Your task to perform on an android device: toggle show notifications on the lock screen Image 0: 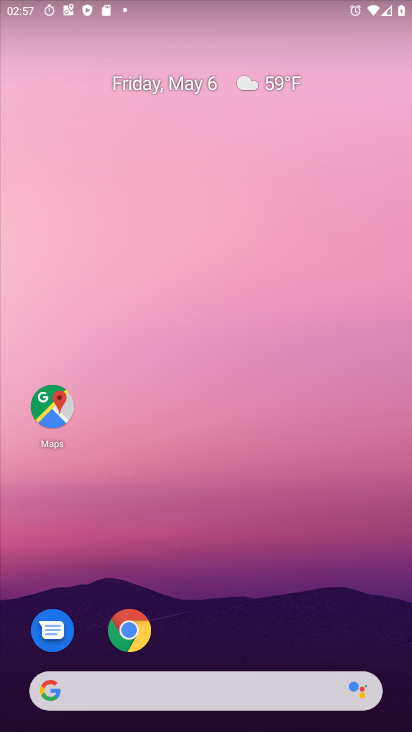
Step 0: drag from (260, 474) to (260, 89)
Your task to perform on an android device: toggle show notifications on the lock screen Image 1: 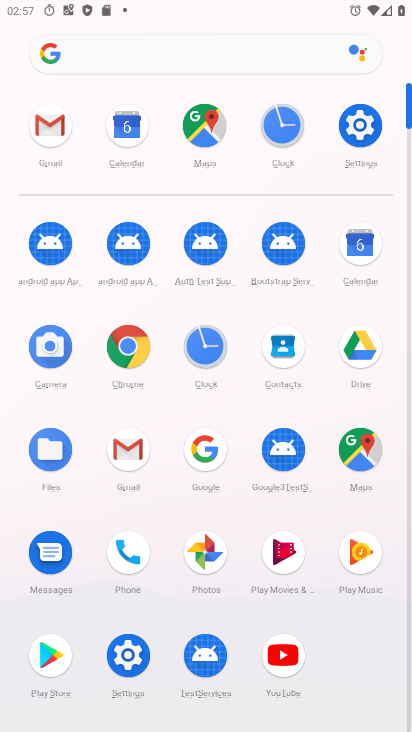
Step 1: click (355, 138)
Your task to perform on an android device: toggle show notifications on the lock screen Image 2: 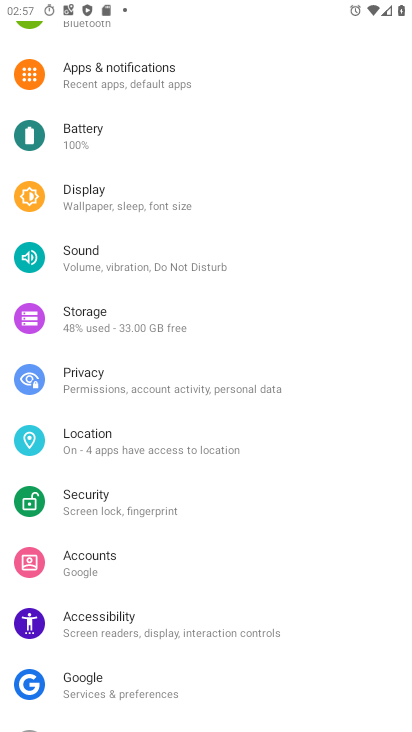
Step 2: drag from (158, 155) to (174, 354)
Your task to perform on an android device: toggle show notifications on the lock screen Image 3: 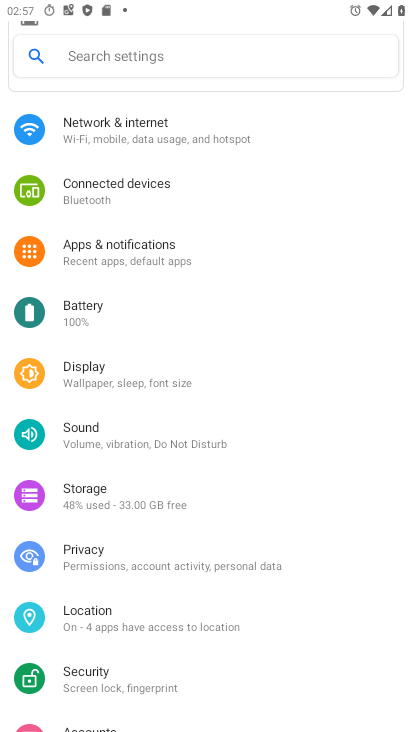
Step 3: drag from (174, 158) to (197, 299)
Your task to perform on an android device: toggle show notifications on the lock screen Image 4: 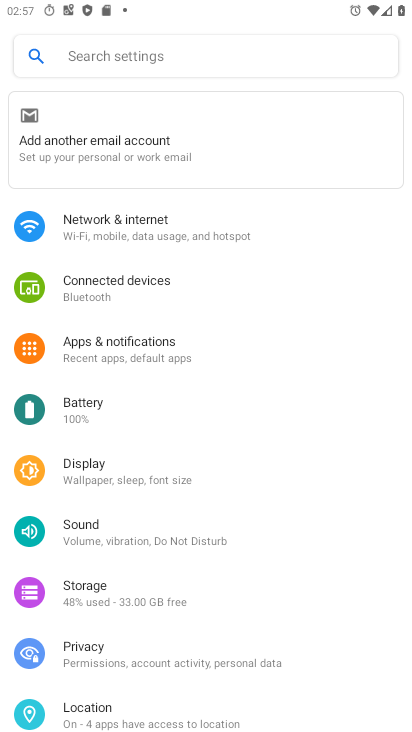
Step 4: click (181, 341)
Your task to perform on an android device: toggle show notifications on the lock screen Image 5: 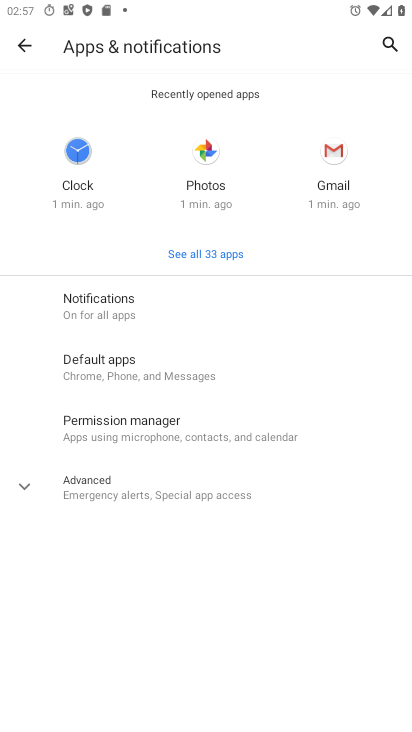
Step 5: click (151, 311)
Your task to perform on an android device: toggle show notifications on the lock screen Image 6: 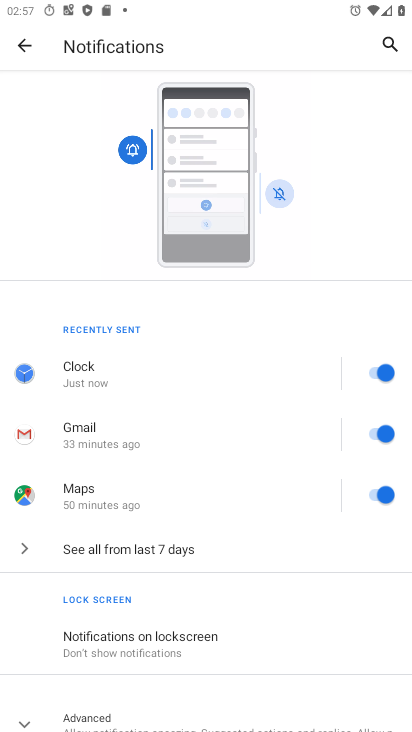
Step 6: drag from (231, 647) to (216, 381)
Your task to perform on an android device: toggle show notifications on the lock screen Image 7: 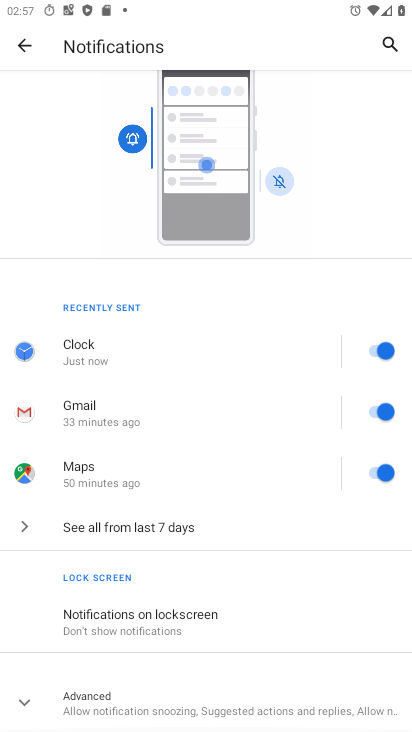
Step 7: click (193, 619)
Your task to perform on an android device: toggle show notifications on the lock screen Image 8: 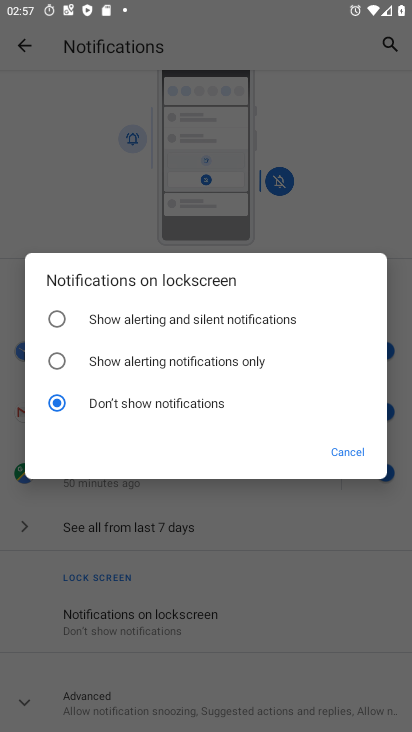
Step 8: click (168, 320)
Your task to perform on an android device: toggle show notifications on the lock screen Image 9: 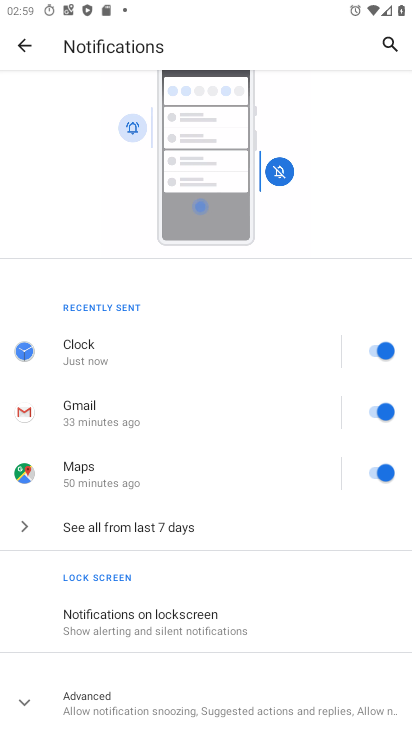
Step 9: task complete